Your task to perform on an android device: Go to network settings Image 0: 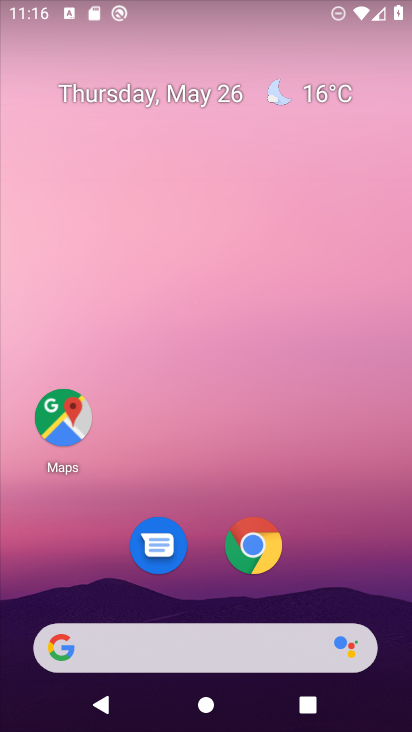
Step 0: press home button
Your task to perform on an android device: Go to network settings Image 1: 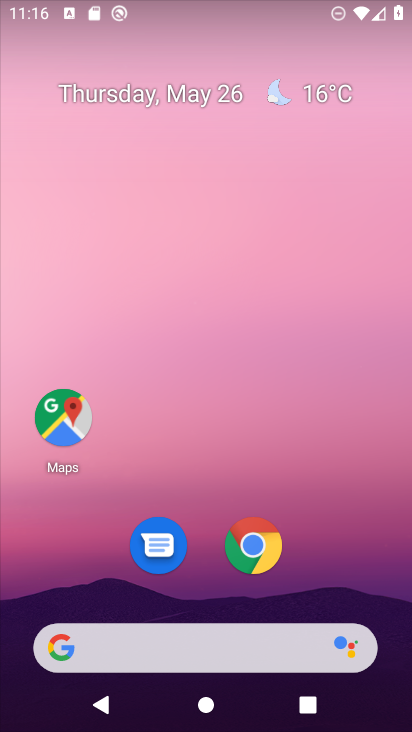
Step 1: drag from (189, 615) to (109, 68)
Your task to perform on an android device: Go to network settings Image 2: 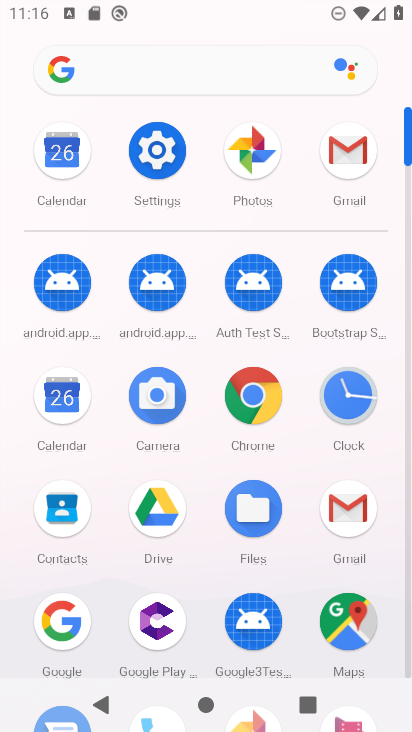
Step 2: click (152, 159)
Your task to perform on an android device: Go to network settings Image 3: 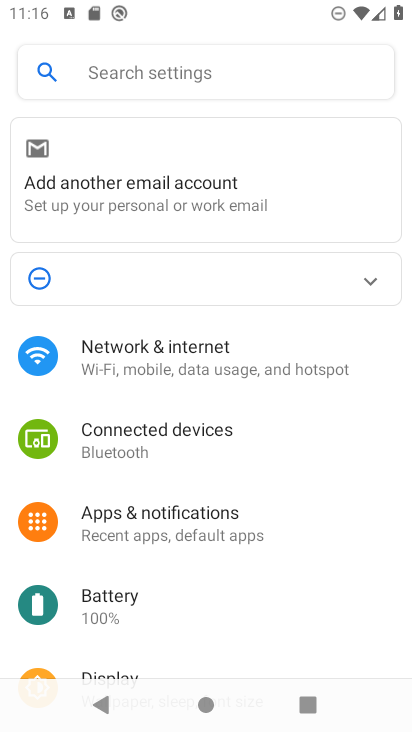
Step 3: click (159, 353)
Your task to perform on an android device: Go to network settings Image 4: 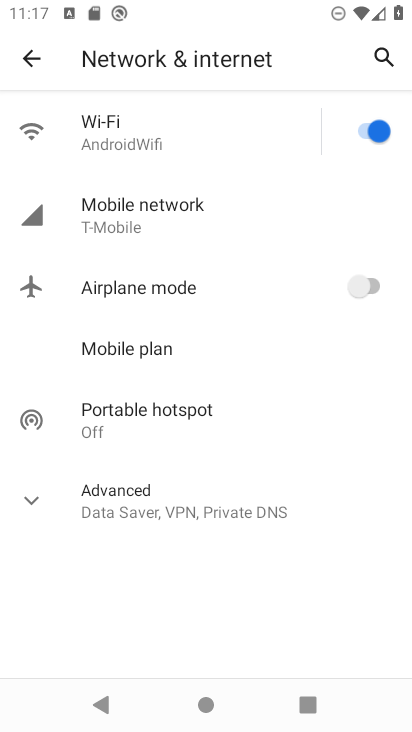
Step 4: task complete